Your task to perform on an android device: Go to Wikipedia Image 0: 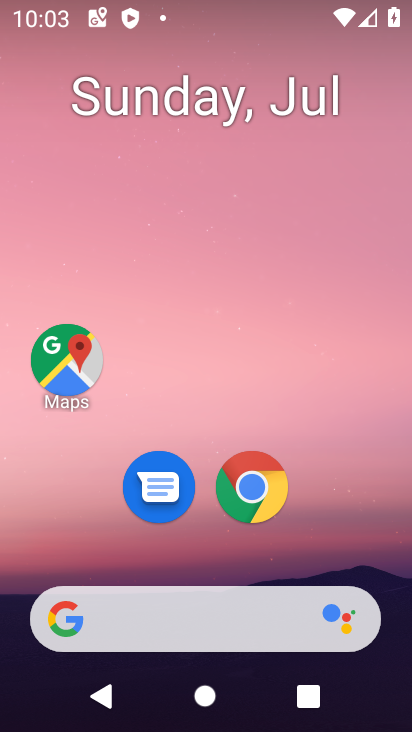
Step 0: click (242, 483)
Your task to perform on an android device: Go to Wikipedia Image 1: 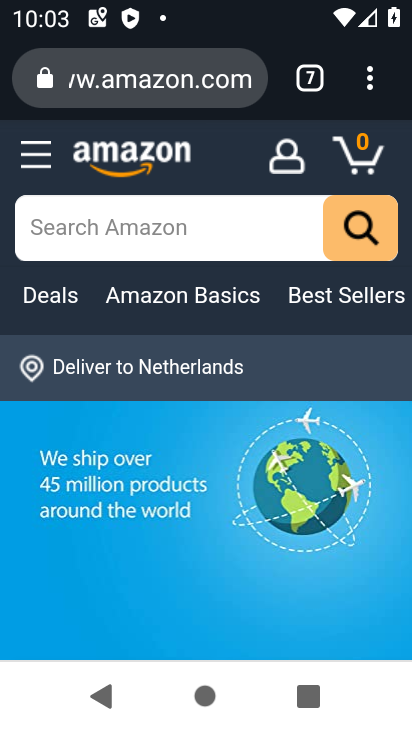
Step 1: click (319, 72)
Your task to perform on an android device: Go to Wikipedia Image 2: 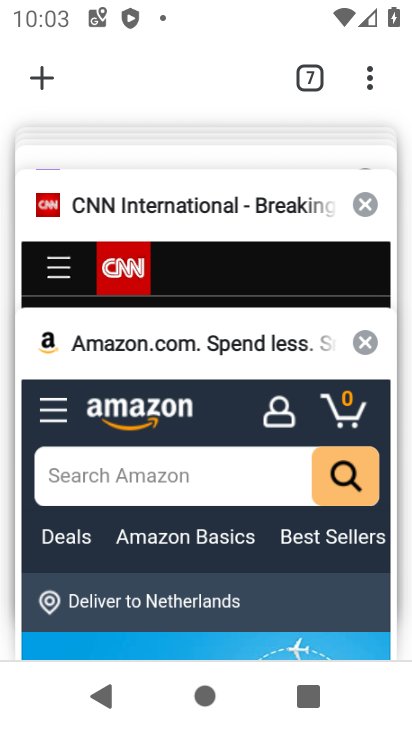
Step 2: click (36, 75)
Your task to perform on an android device: Go to Wikipedia Image 3: 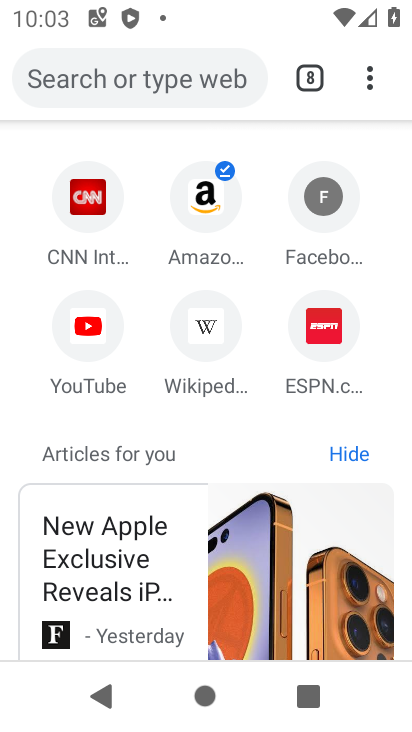
Step 3: click (220, 318)
Your task to perform on an android device: Go to Wikipedia Image 4: 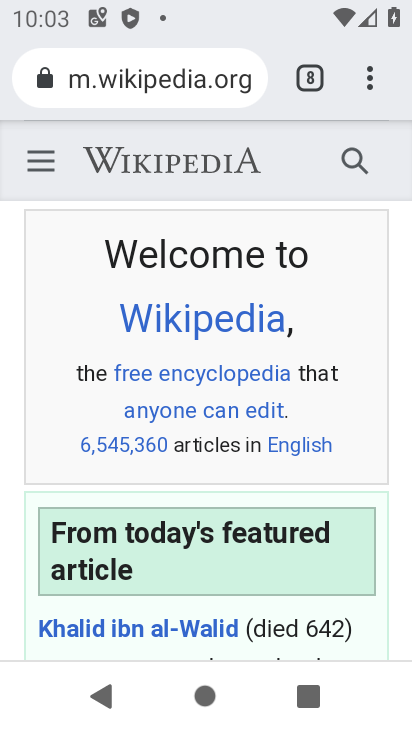
Step 4: task complete